Your task to perform on an android device: all mails in gmail Image 0: 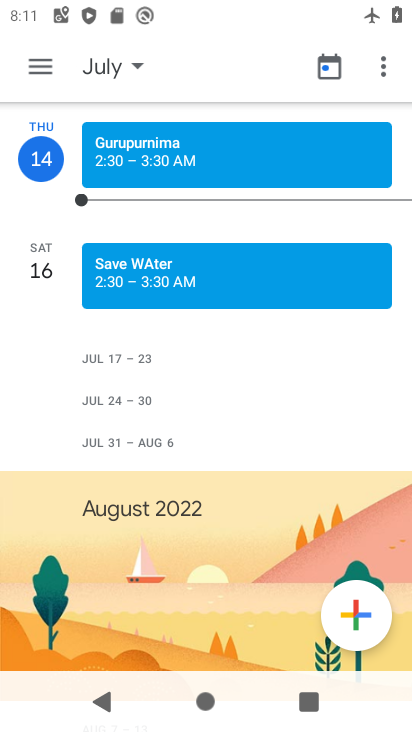
Step 0: press home button
Your task to perform on an android device: all mails in gmail Image 1: 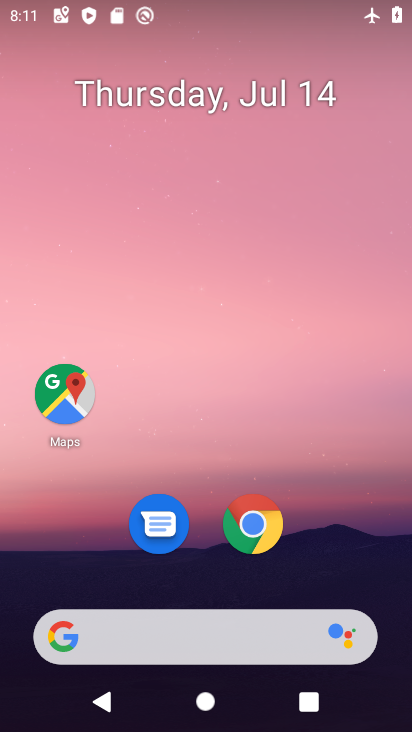
Step 1: drag from (327, 505) to (301, 23)
Your task to perform on an android device: all mails in gmail Image 2: 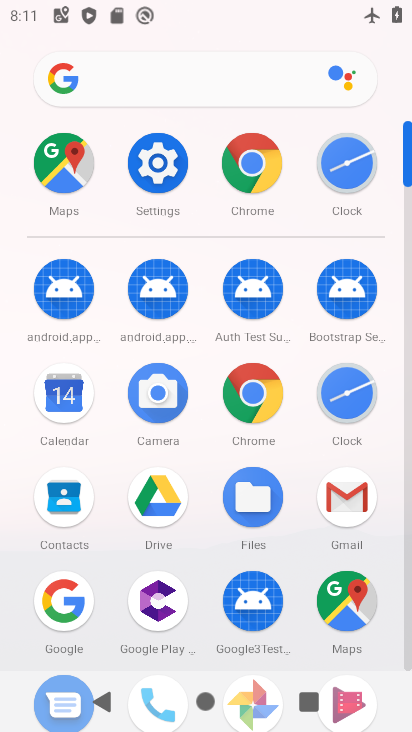
Step 2: click (339, 484)
Your task to perform on an android device: all mails in gmail Image 3: 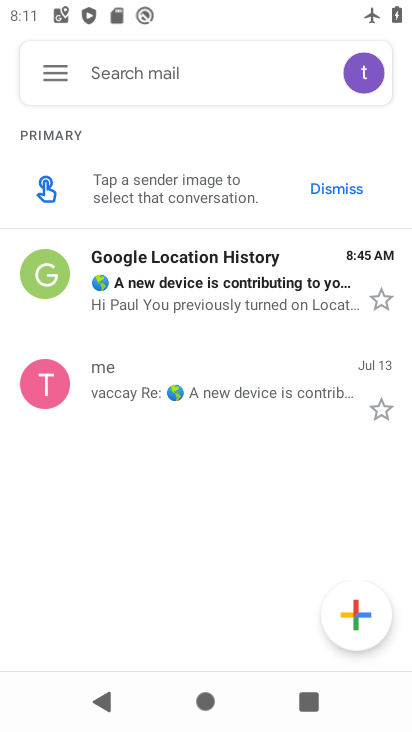
Step 3: click (62, 72)
Your task to perform on an android device: all mails in gmail Image 4: 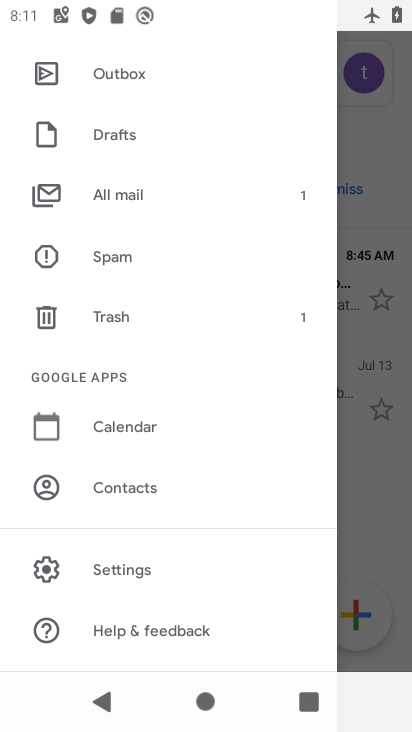
Step 4: click (124, 192)
Your task to perform on an android device: all mails in gmail Image 5: 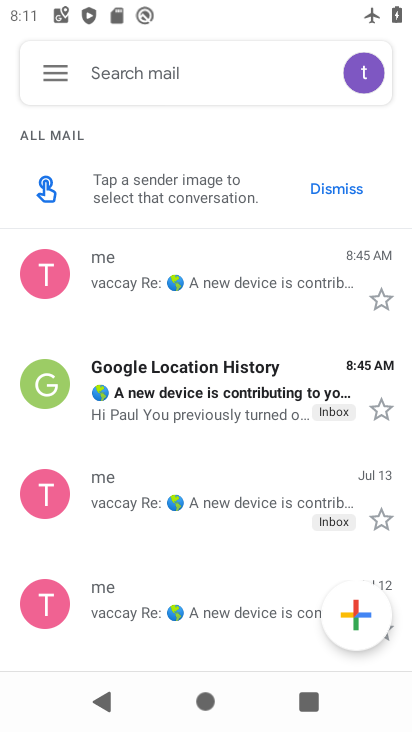
Step 5: task complete